Your task to perform on an android device: Open the web browser Image 0: 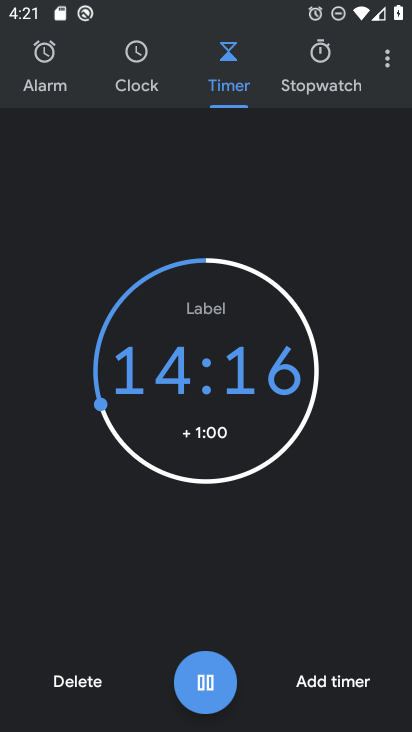
Step 0: press home button
Your task to perform on an android device: Open the web browser Image 1: 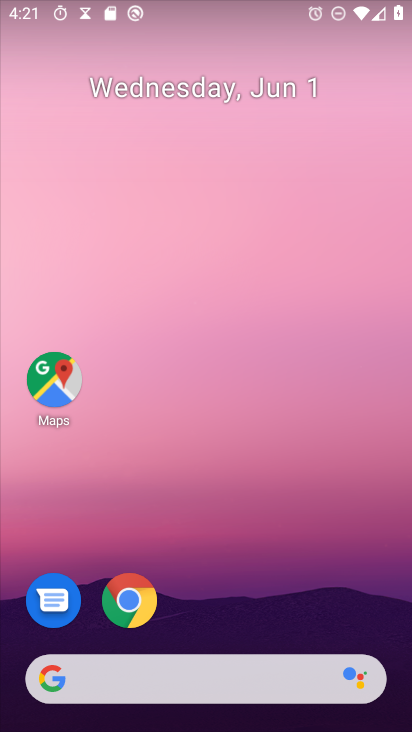
Step 1: click (127, 600)
Your task to perform on an android device: Open the web browser Image 2: 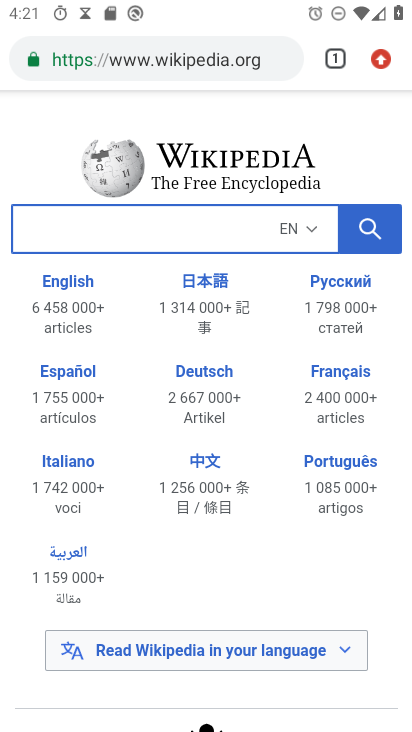
Step 2: press home button
Your task to perform on an android device: Open the web browser Image 3: 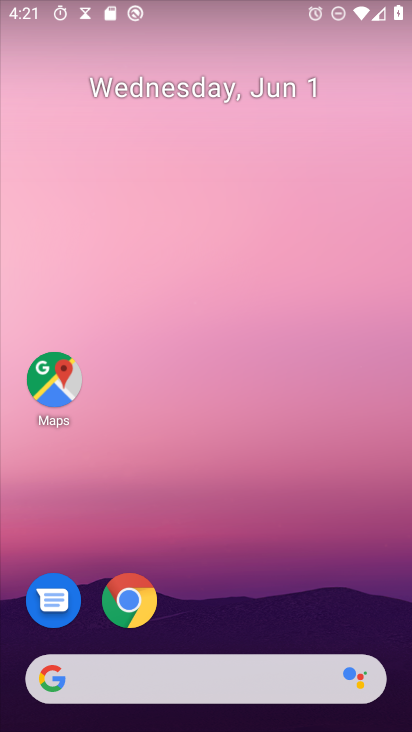
Step 3: click (116, 604)
Your task to perform on an android device: Open the web browser Image 4: 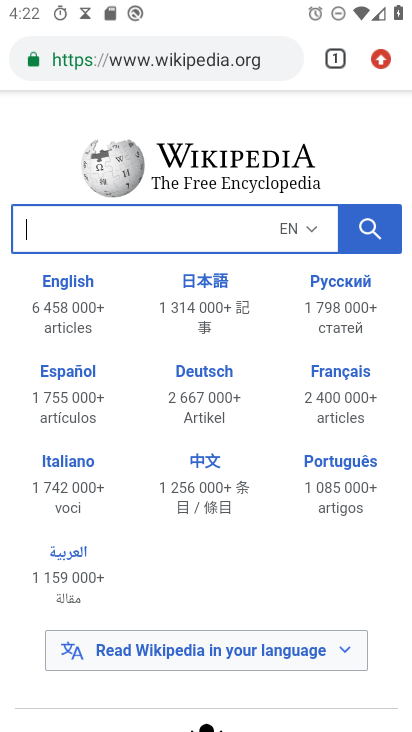
Step 4: task complete